Your task to perform on an android device: open device folders in google photos Image 0: 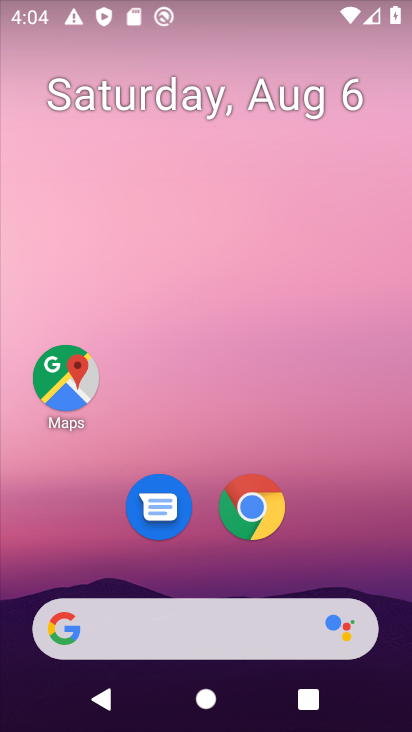
Step 0: drag from (183, 430) to (174, 163)
Your task to perform on an android device: open device folders in google photos Image 1: 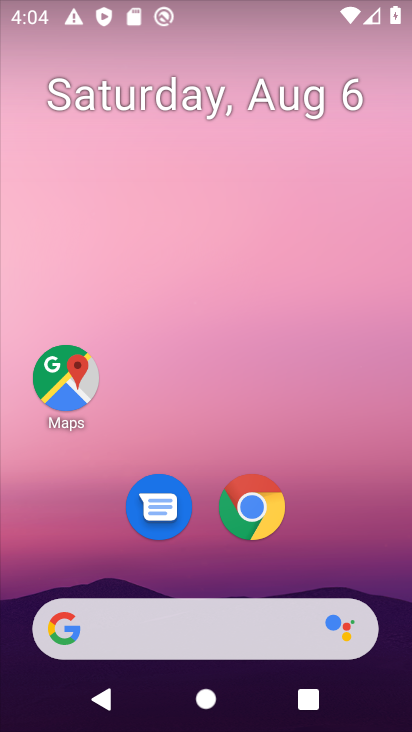
Step 1: drag from (220, 439) to (231, 139)
Your task to perform on an android device: open device folders in google photos Image 2: 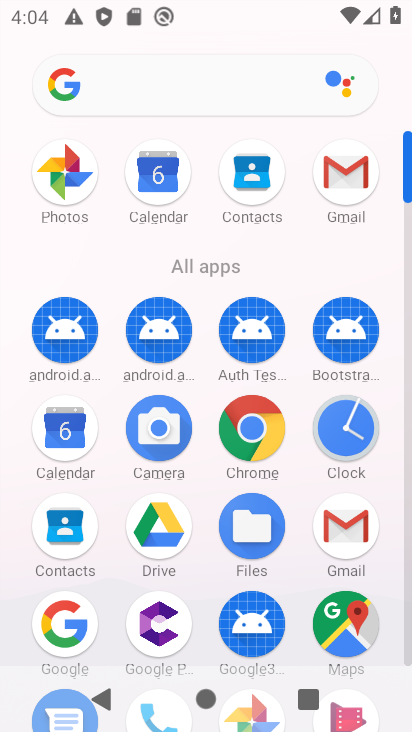
Step 2: click (72, 197)
Your task to perform on an android device: open device folders in google photos Image 3: 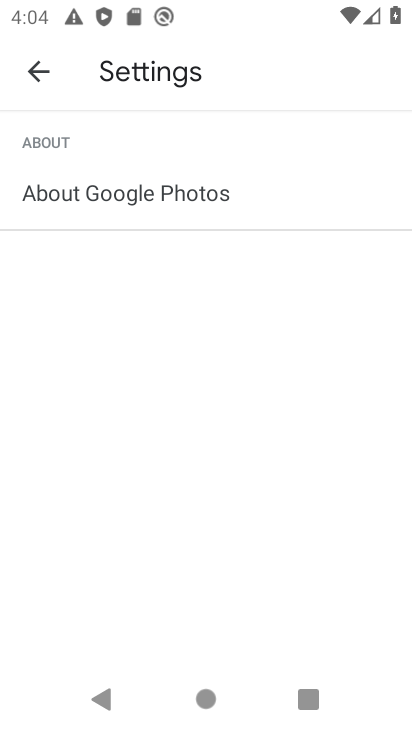
Step 3: task complete